Your task to perform on an android device: turn off location history Image 0: 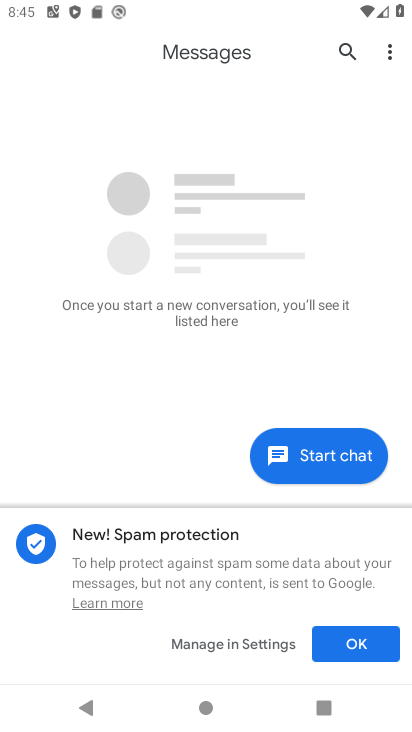
Step 0: press home button
Your task to perform on an android device: turn off location history Image 1: 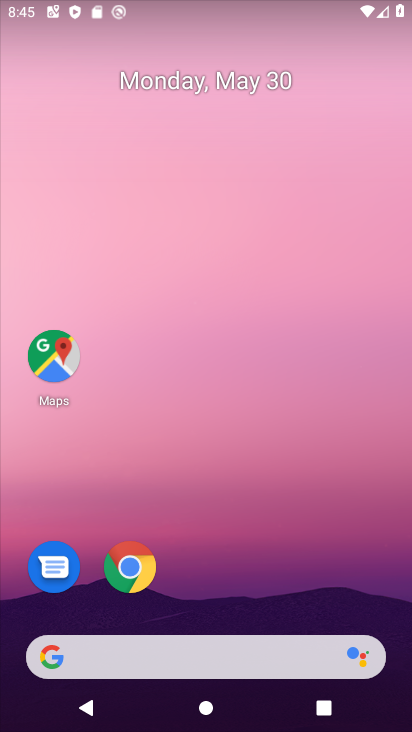
Step 1: drag from (221, 594) to (203, 190)
Your task to perform on an android device: turn off location history Image 2: 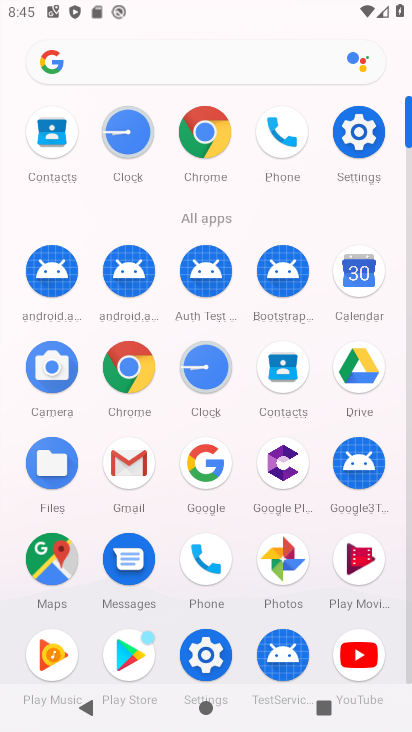
Step 2: click (41, 554)
Your task to perform on an android device: turn off location history Image 3: 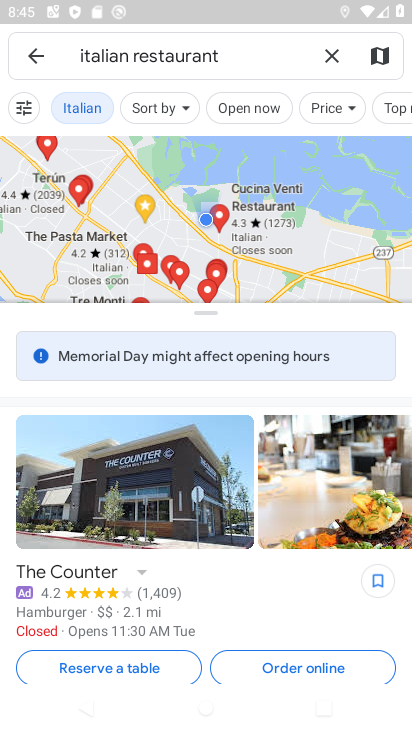
Step 3: click (32, 66)
Your task to perform on an android device: turn off location history Image 4: 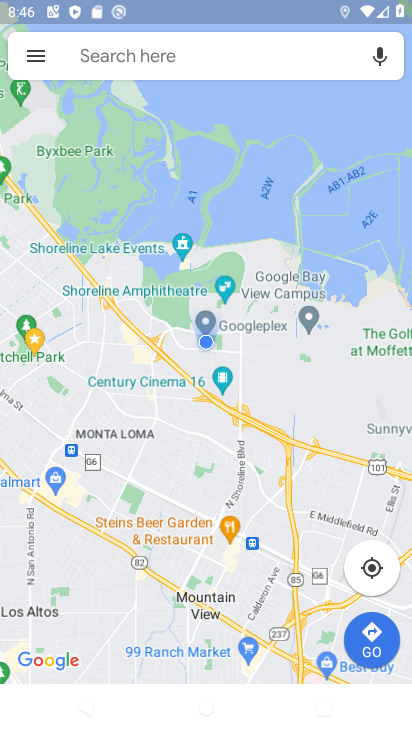
Step 4: click (32, 66)
Your task to perform on an android device: turn off location history Image 5: 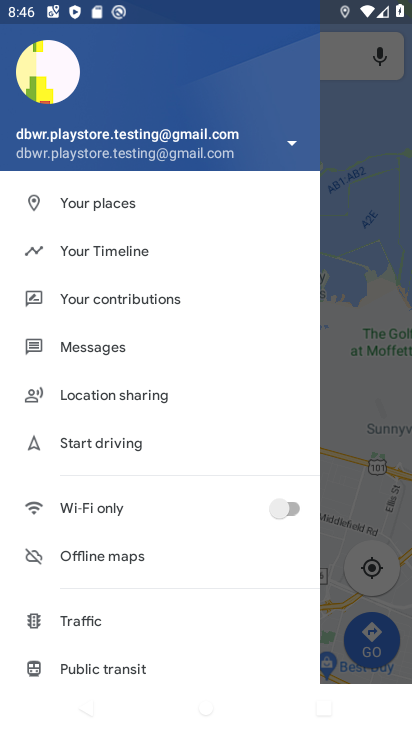
Step 5: click (83, 256)
Your task to perform on an android device: turn off location history Image 6: 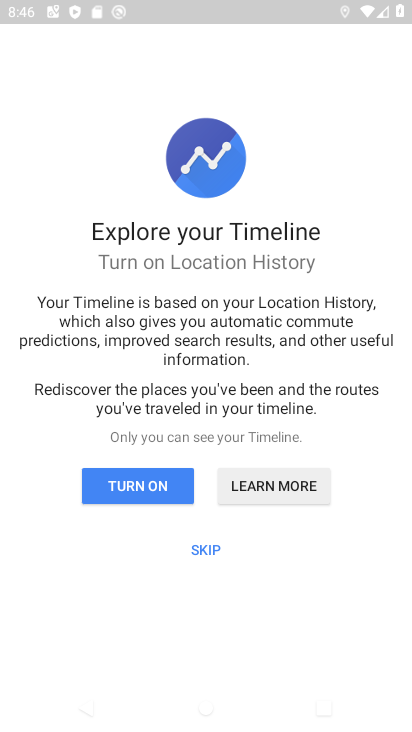
Step 6: click (205, 553)
Your task to perform on an android device: turn off location history Image 7: 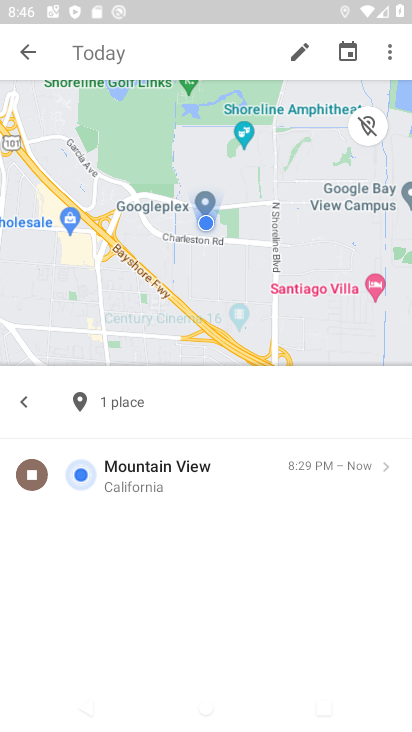
Step 7: click (391, 55)
Your task to perform on an android device: turn off location history Image 8: 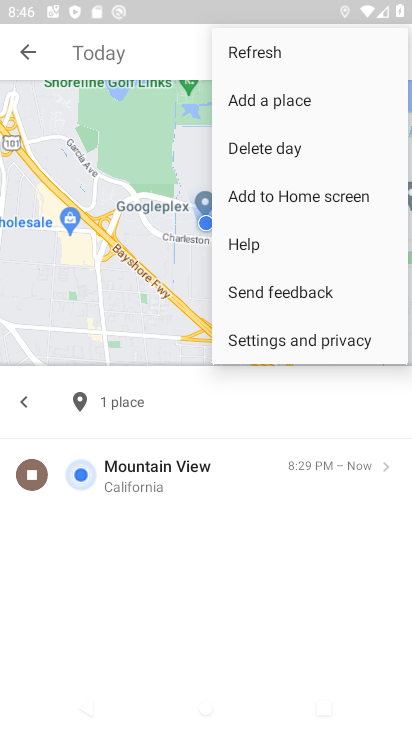
Step 8: click (312, 336)
Your task to perform on an android device: turn off location history Image 9: 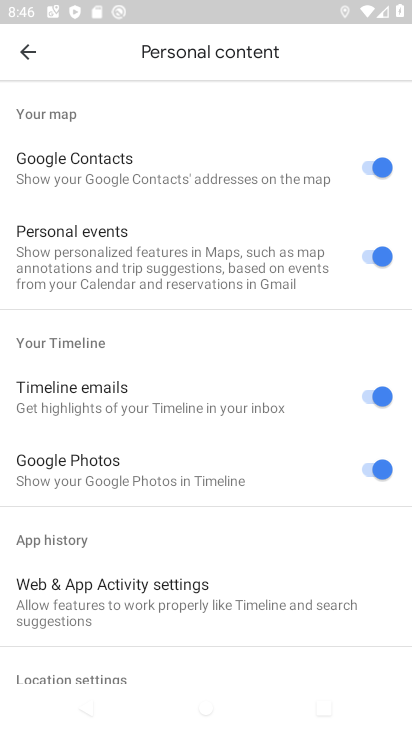
Step 9: task complete